Your task to perform on an android device: Search for seafood restaurants on Google Maps Image 0: 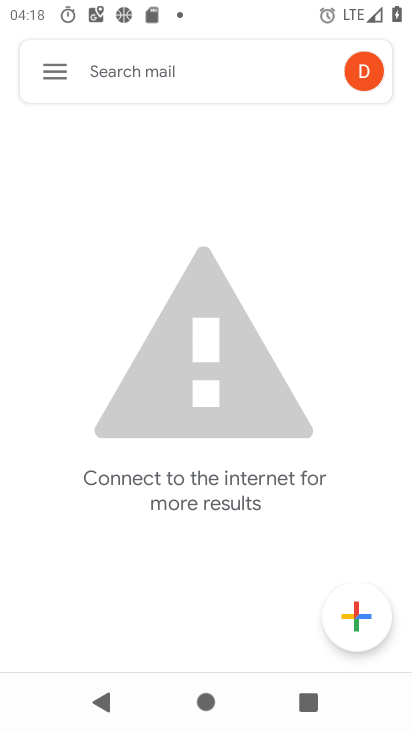
Step 0: press back button
Your task to perform on an android device: Search for seafood restaurants on Google Maps Image 1: 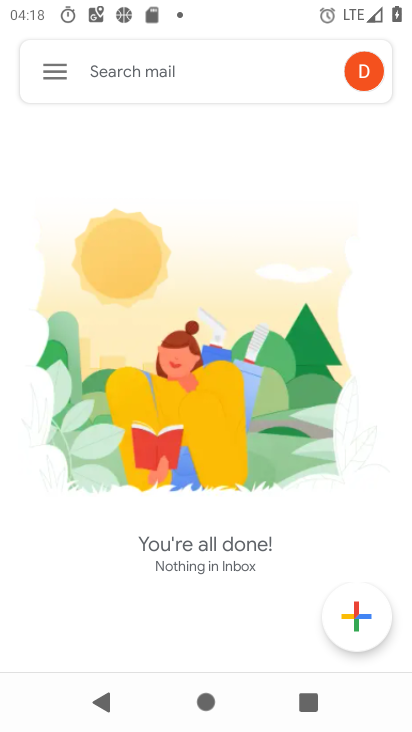
Step 1: press home button
Your task to perform on an android device: Search for seafood restaurants on Google Maps Image 2: 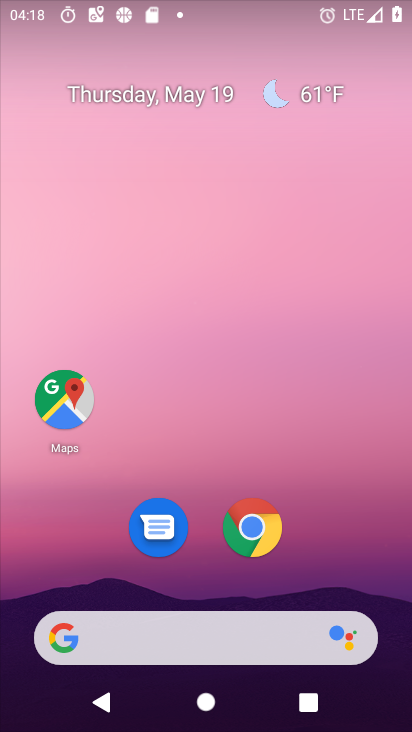
Step 2: click (43, 389)
Your task to perform on an android device: Search for seafood restaurants on Google Maps Image 3: 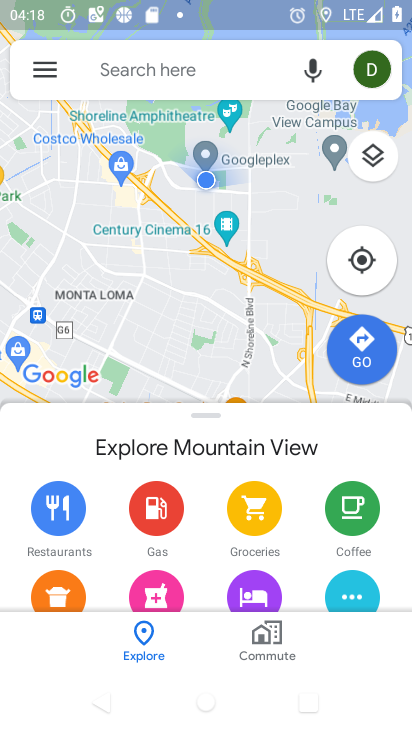
Step 3: click (152, 77)
Your task to perform on an android device: Search for seafood restaurants on Google Maps Image 4: 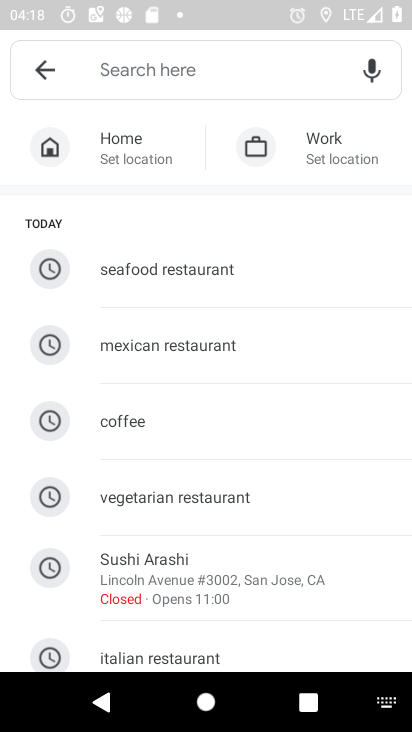
Step 4: click (167, 264)
Your task to perform on an android device: Search for seafood restaurants on Google Maps Image 5: 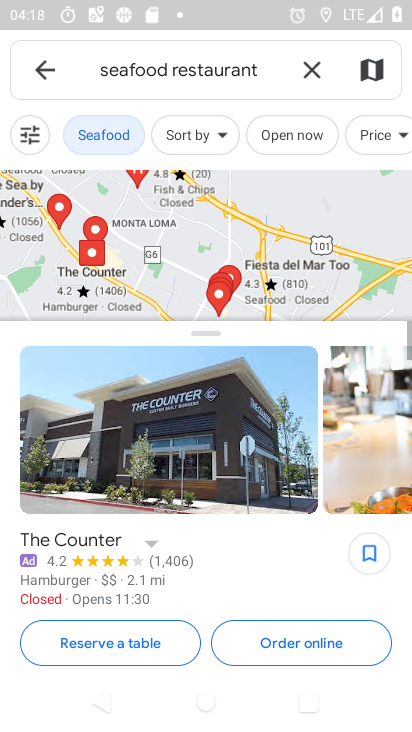
Step 5: task complete